Your task to perform on an android device: Open settings on Google Maps Image 0: 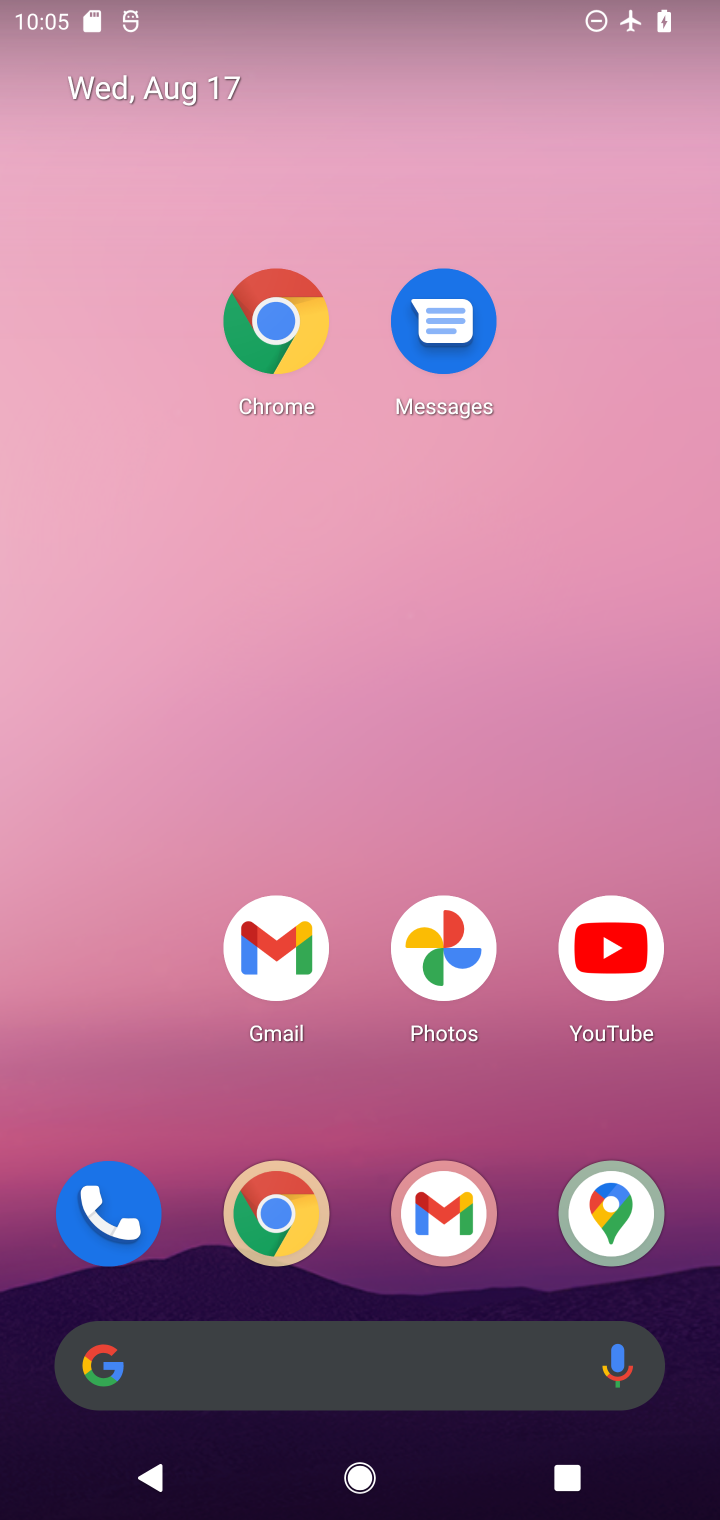
Step 0: click (598, 1202)
Your task to perform on an android device: Open settings on Google Maps Image 1: 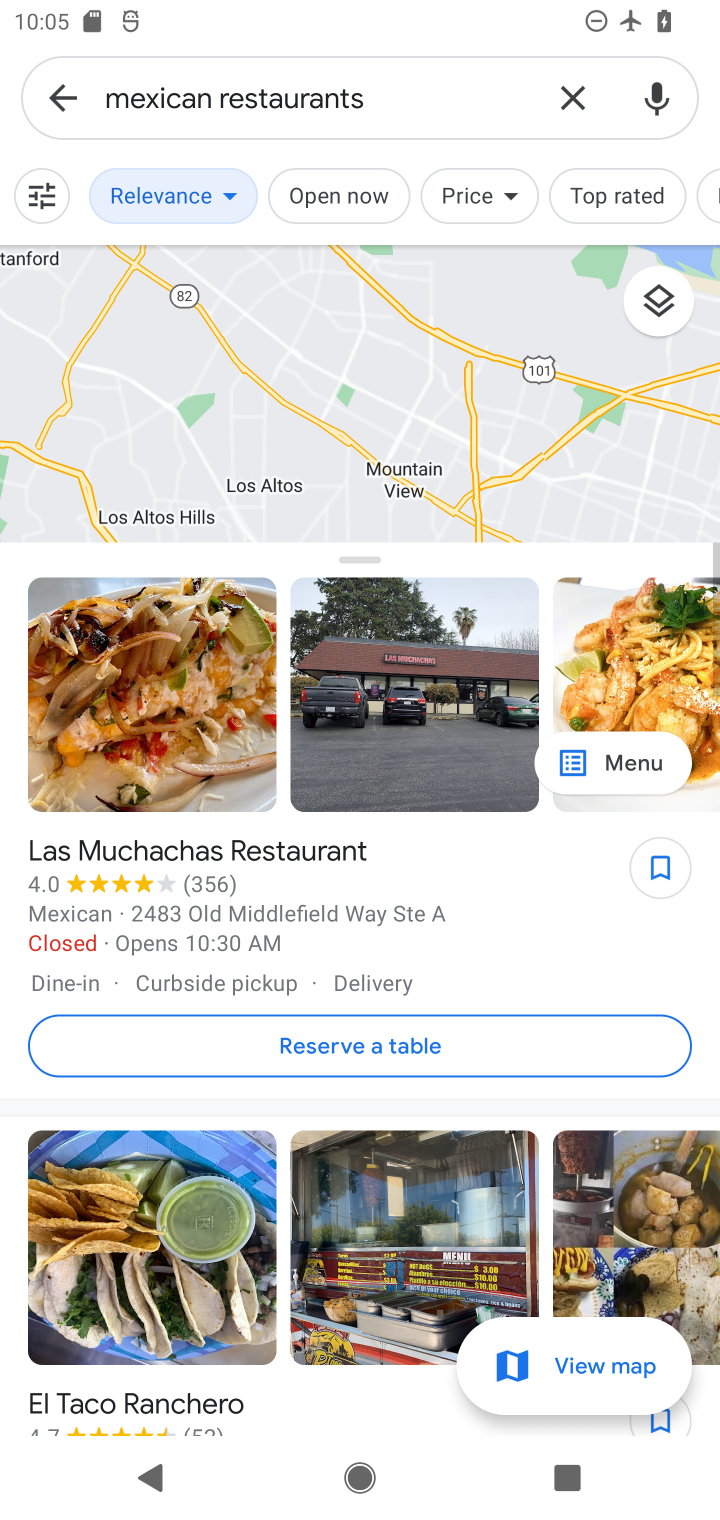
Step 1: click (56, 107)
Your task to perform on an android device: Open settings on Google Maps Image 2: 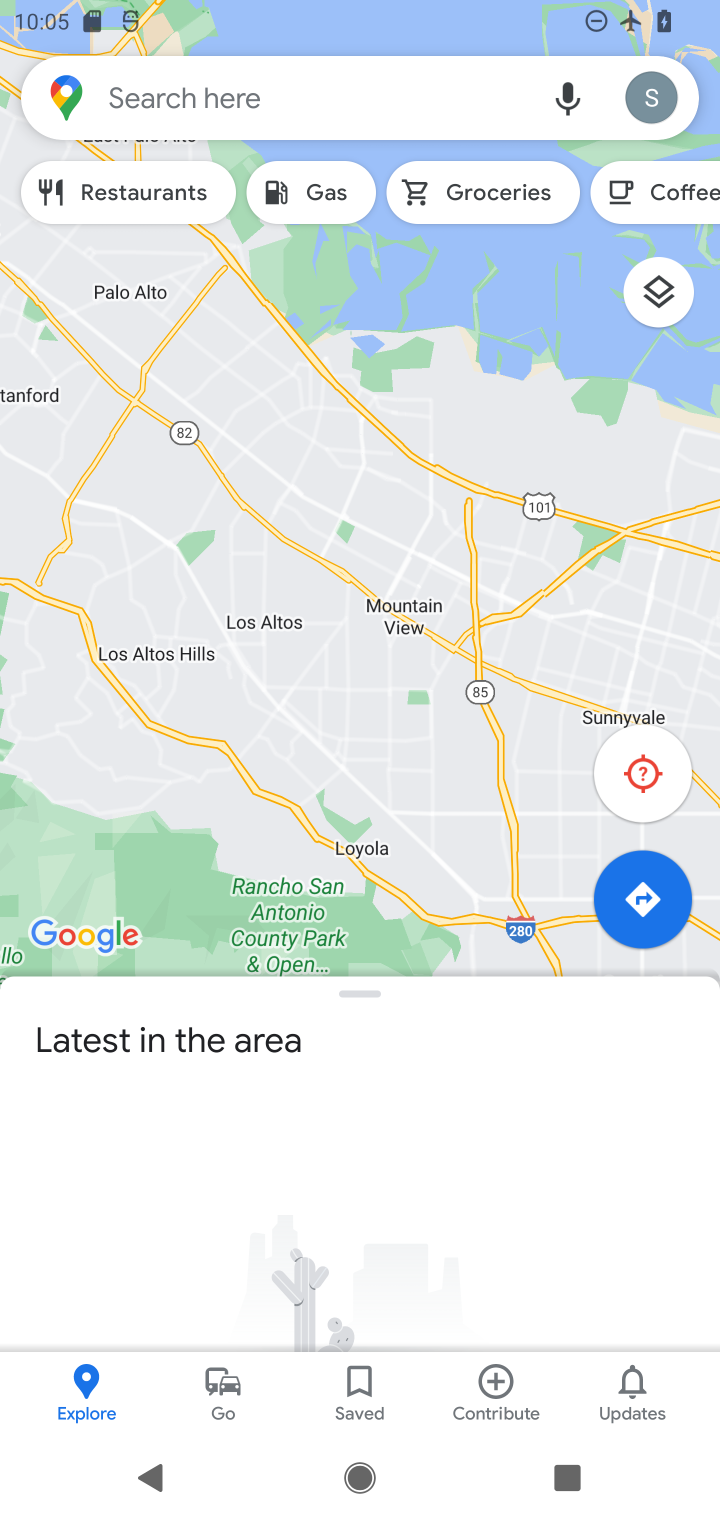
Step 2: click (666, 101)
Your task to perform on an android device: Open settings on Google Maps Image 3: 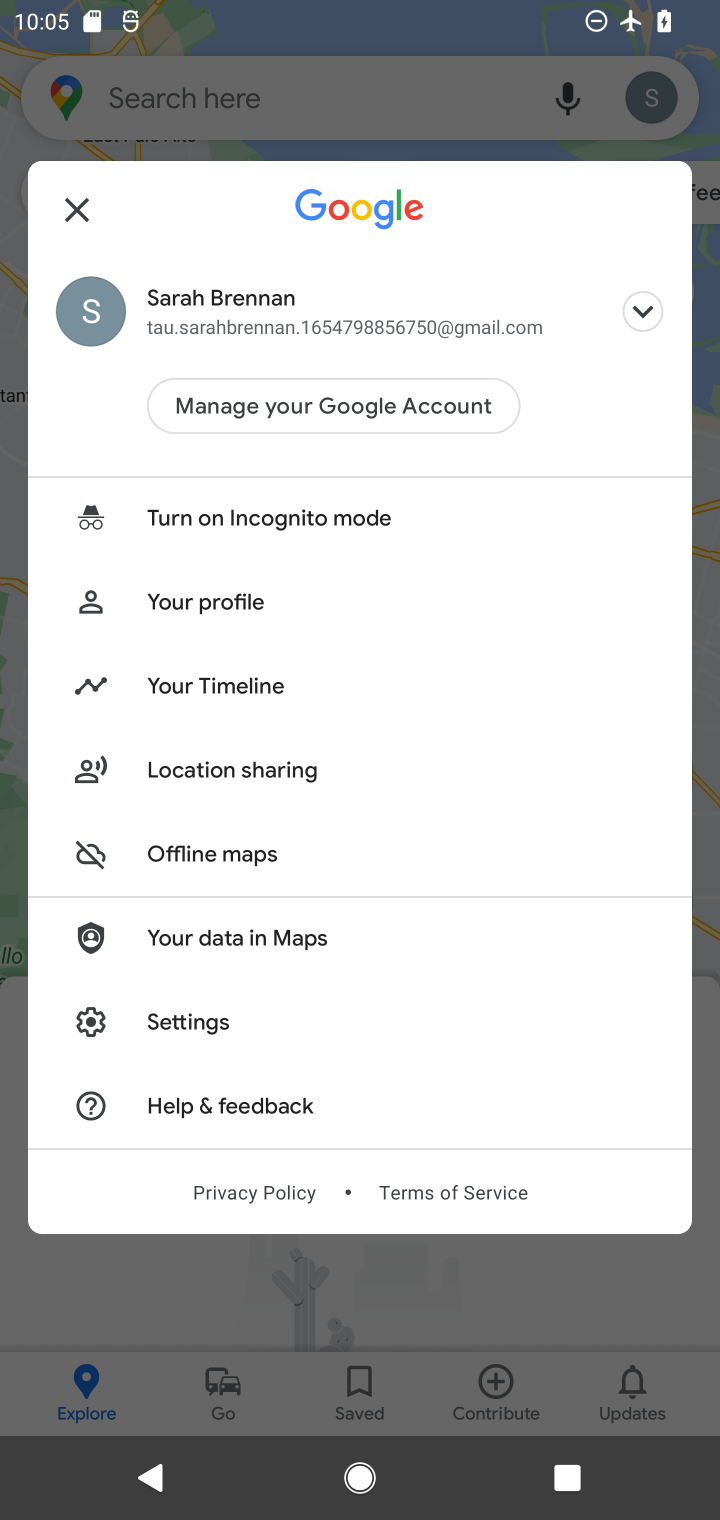
Step 3: click (386, 1031)
Your task to perform on an android device: Open settings on Google Maps Image 4: 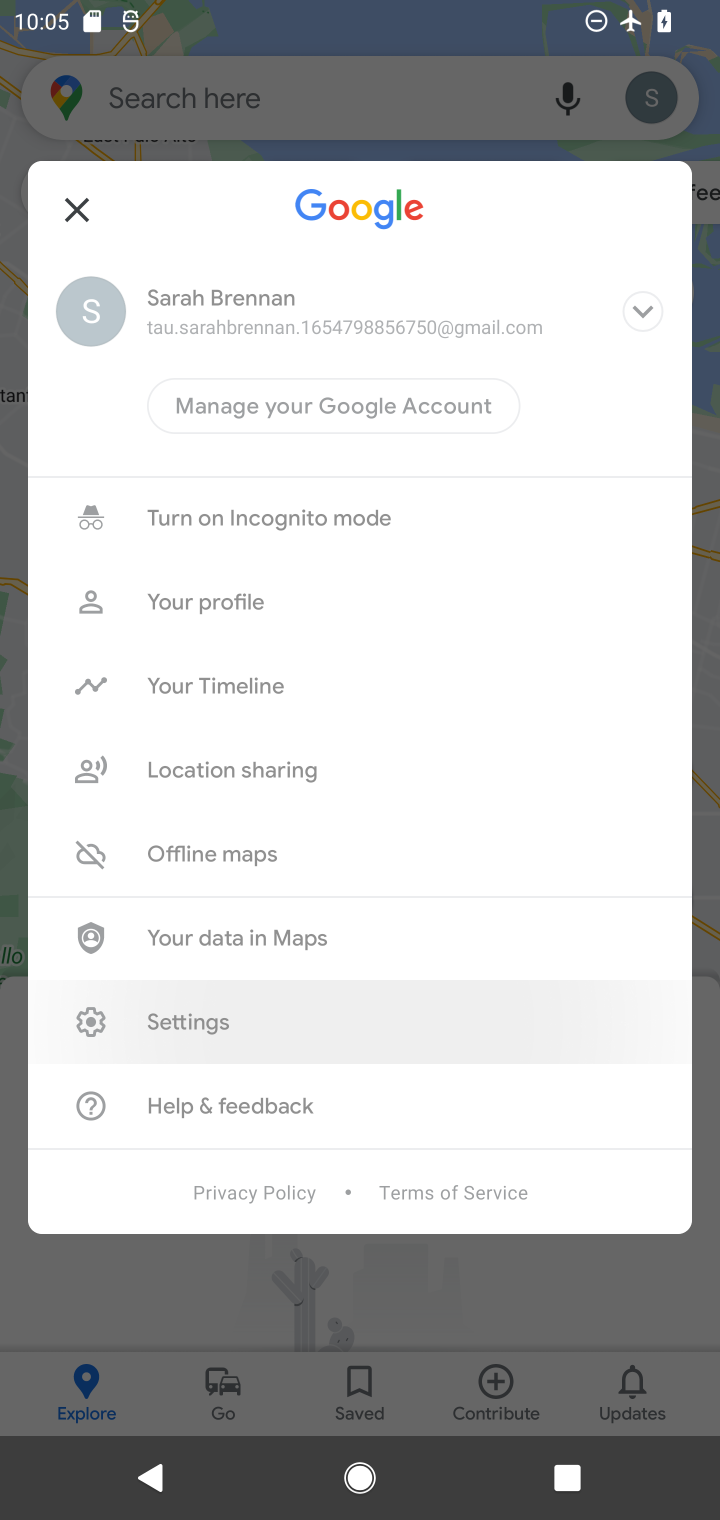
Step 4: task complete